Your task to perform on an android device: Open Chrome and go to the settings page Image 0: 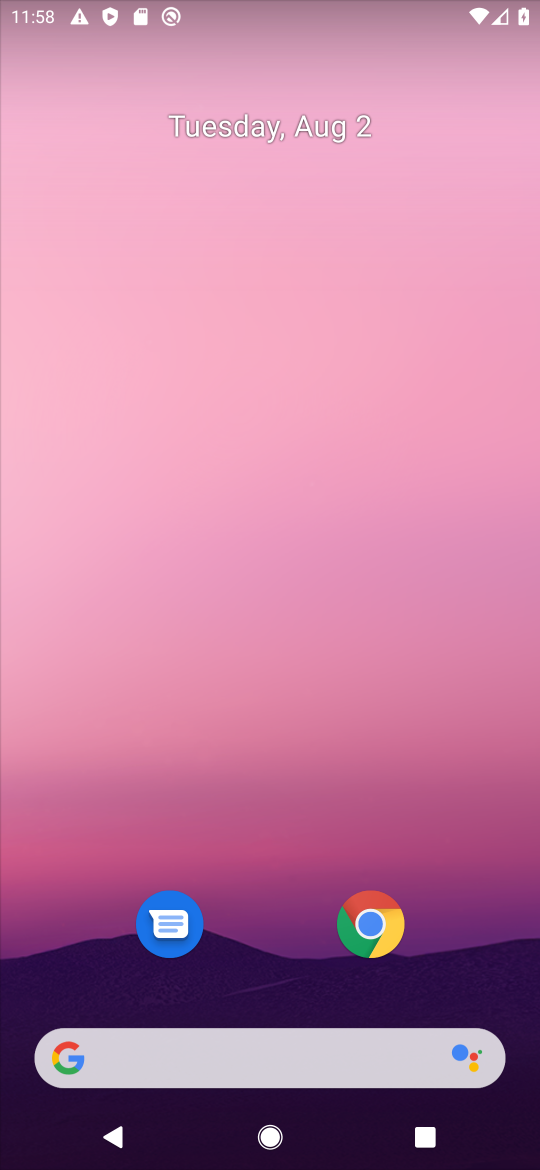
Step 0: click (366, 920)
Your task to perform on an android device: Open Chrome and go to the settings page Image 1: 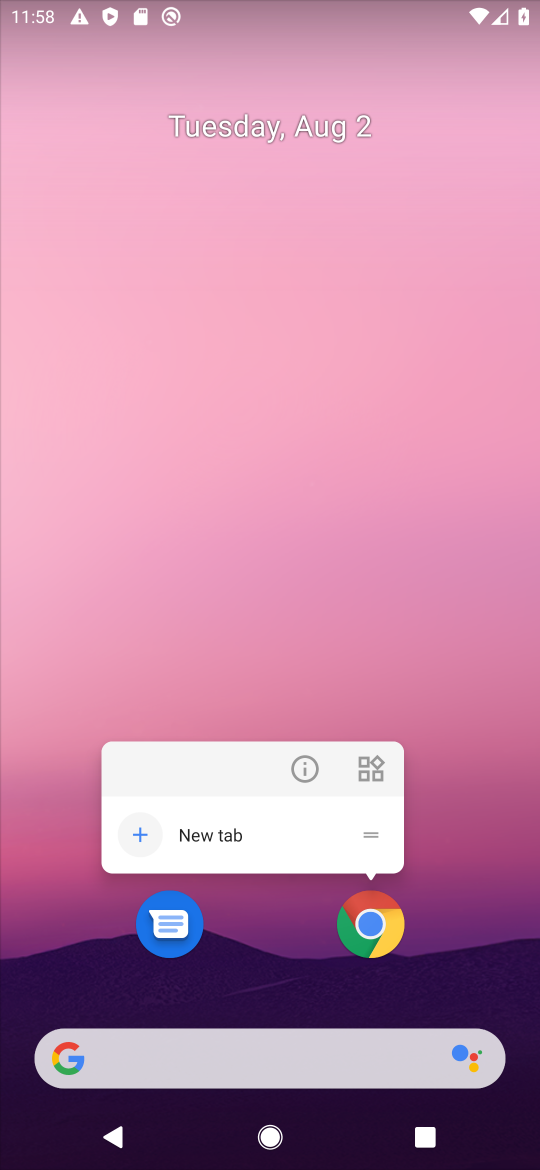
Step 1: click (372, 917)
Your task to perform on an android device: Open Chrome and go to the settings page Image 2: 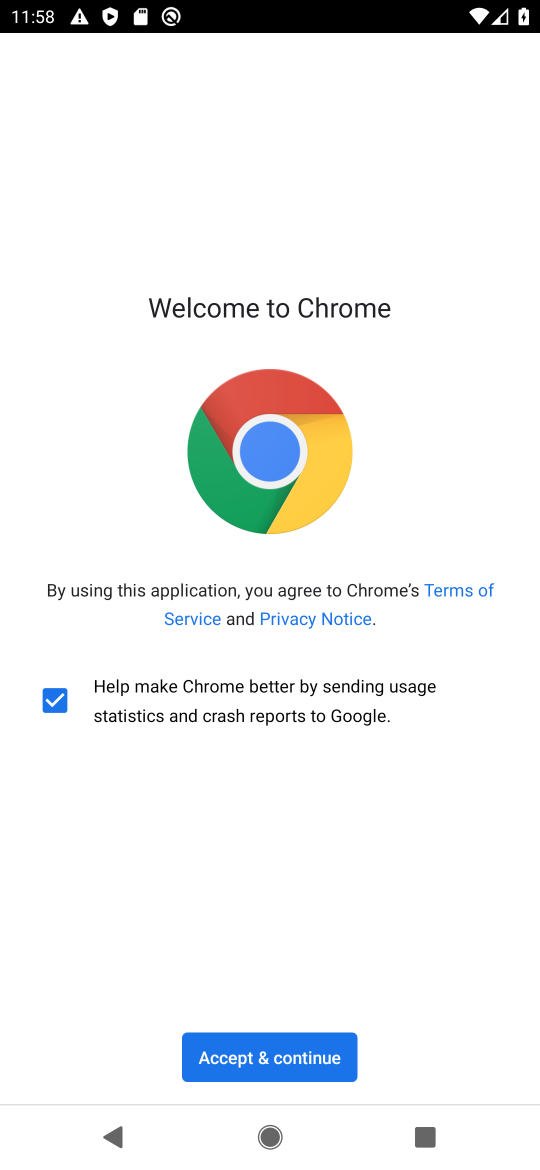
Step 2: click (291, 1053)
Your task to perform on an android device: Open Chrome and go to the settings page Image 3: 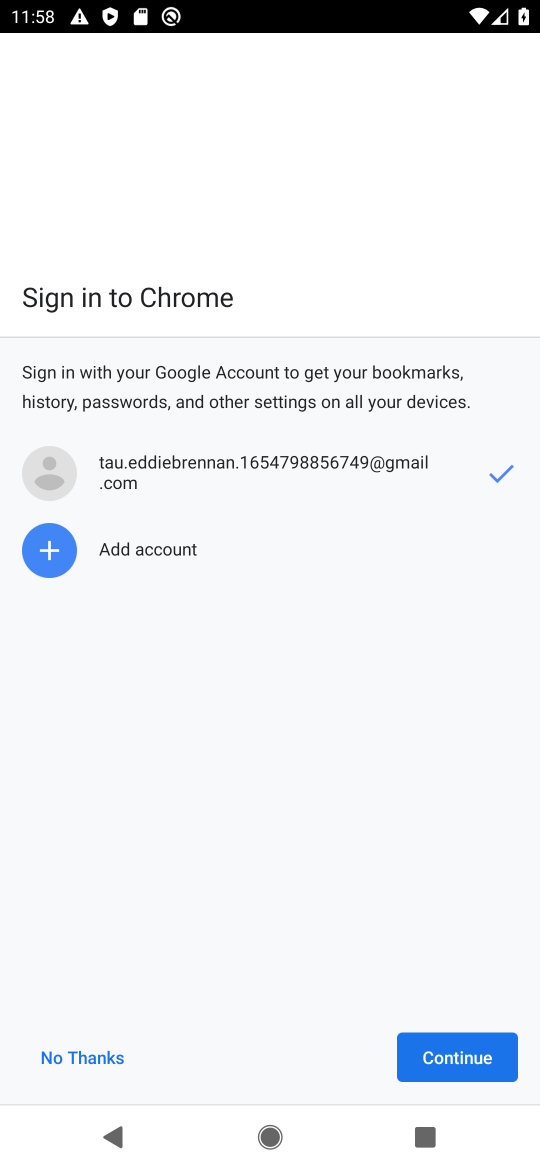
Step 3: click (444, 1053)
Your task to perform on an android device: Open Chrome and go to the settings page Image 4: 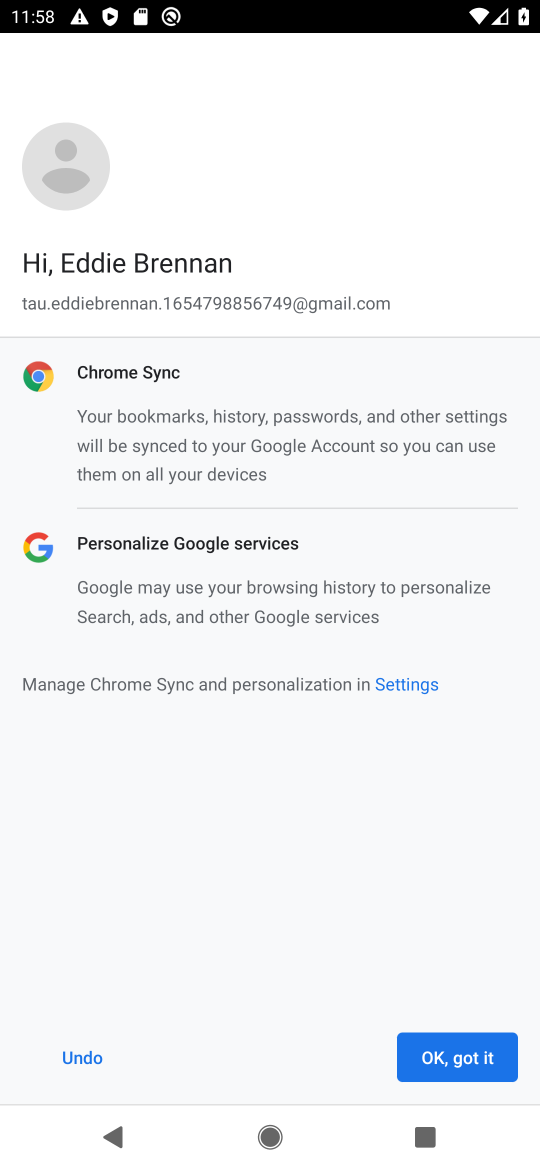
Step 4: click (429, 1045)
Your task to perform on an android device: Open Chrome and go to the settings page Image 5: 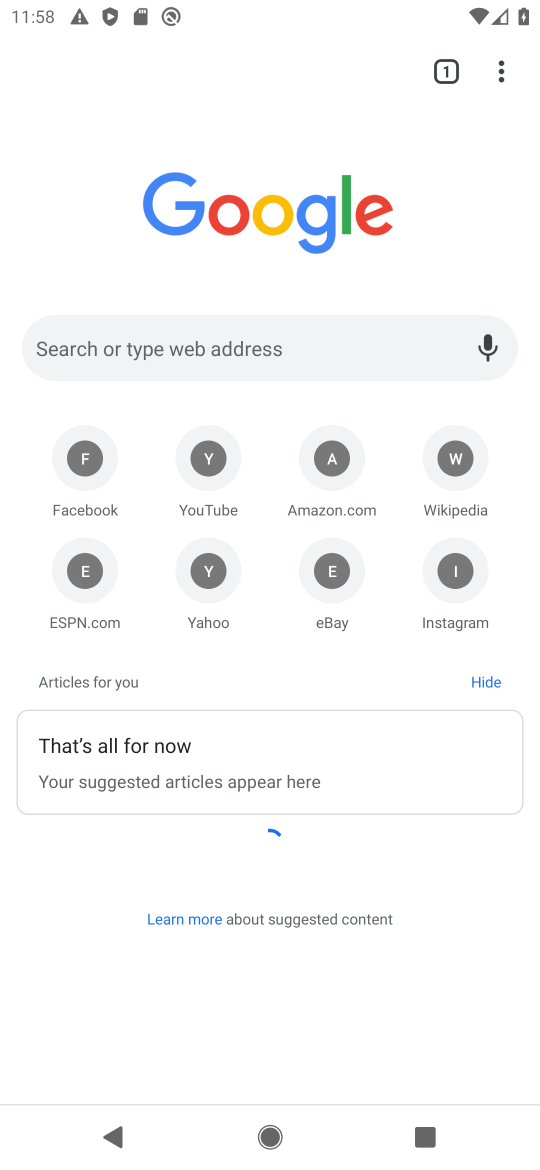
Step 5: task complete